Your task to perform on an android device: Show me the alarms in the clock app Image 0: 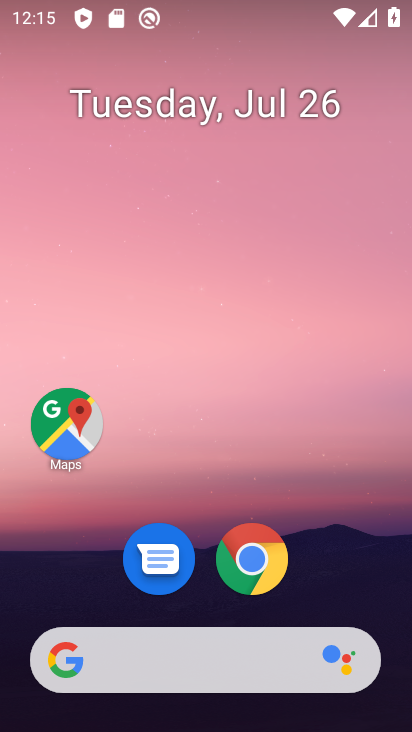
Step 0: drag from (79, 564) to (188, 1)
Your task to perform on an android device: Show me the alarms in the clock app Image 1: 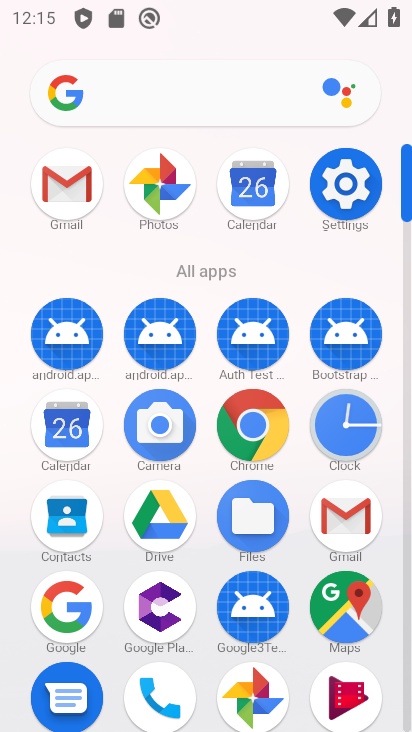
Step 1: click (349, 418)
Your task to perform on an android device: Show me the alarms in the clock app Image 2: 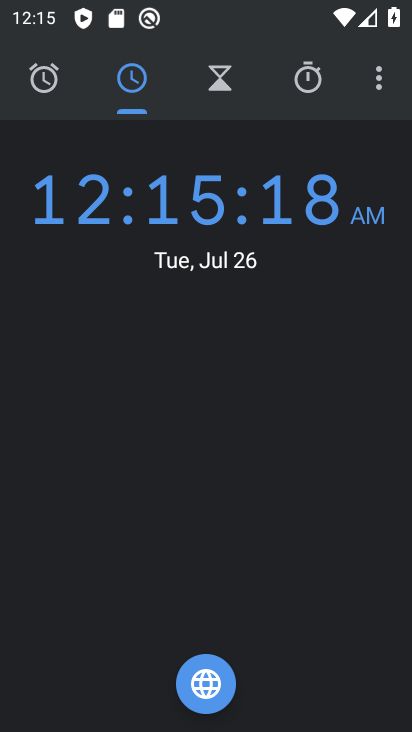
Step 2: click (58, 68)
Your task to perform on an android device: Show me the alarms in the clock app Image 3: 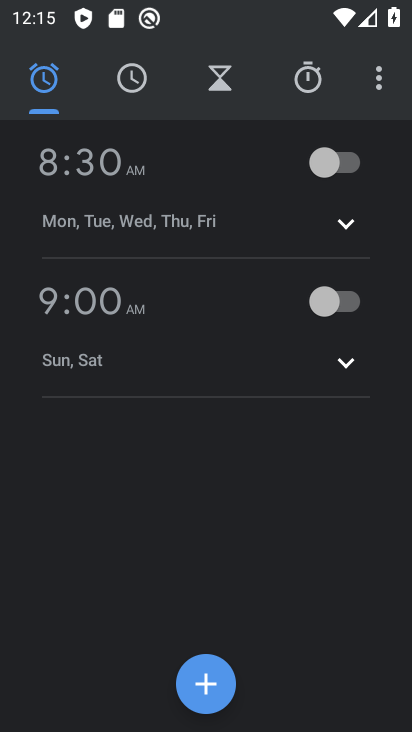
Step 3: task complete